Your task to perform on an android device: remove spam from my inbox in the gmail app Image 0: 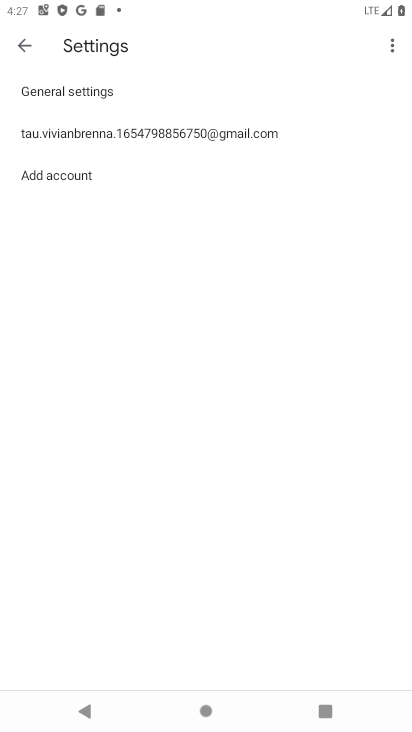
Step 0: press home button
Your task to perform on an android device: remove spam from my inbox in the gmail app Image 1: 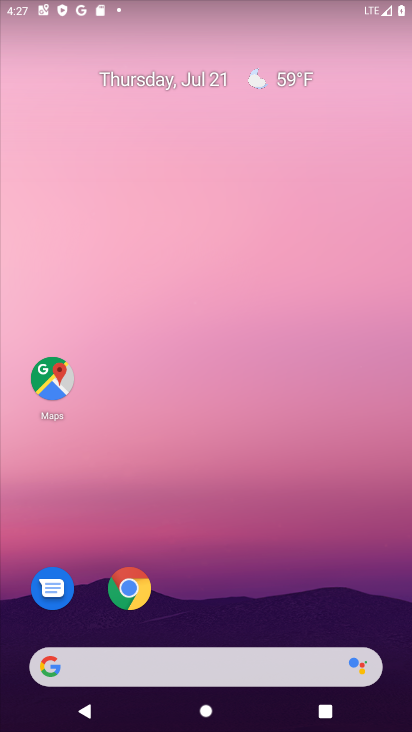
Step 1: drag from (233, 720) to (258, 148)
Your task to perform on an android device: remove spam from my inbox in the gmail app Image 2: 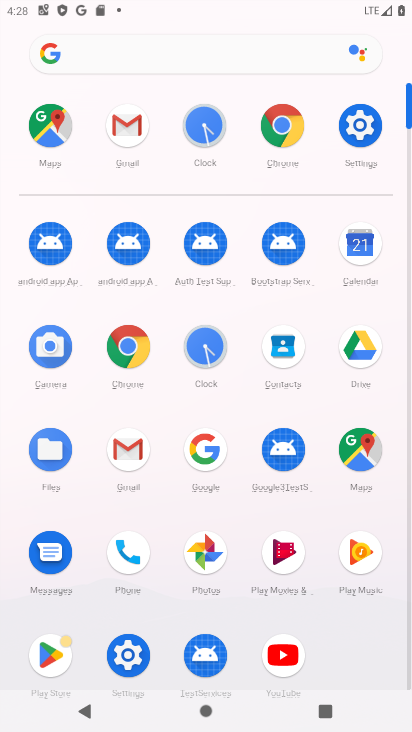
Step 2: click (133, 448)
Your task to perform on an android device: remove spam from my inbox in the gmail app Image 3: 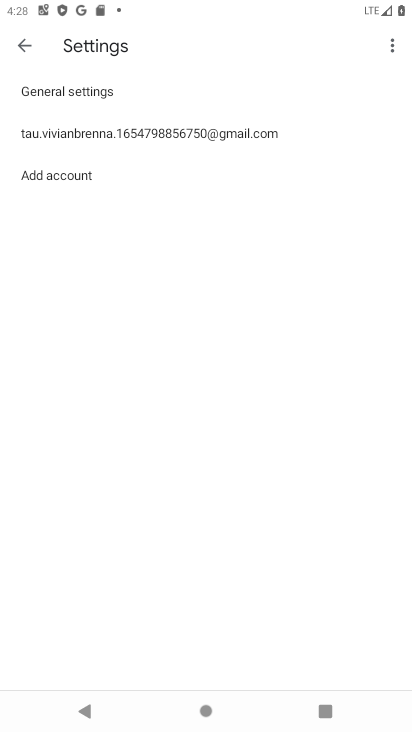
Step 3: click (21, 41)
Your task to perform on an android device: remove spam from my inbox in the gmail app Image 4: 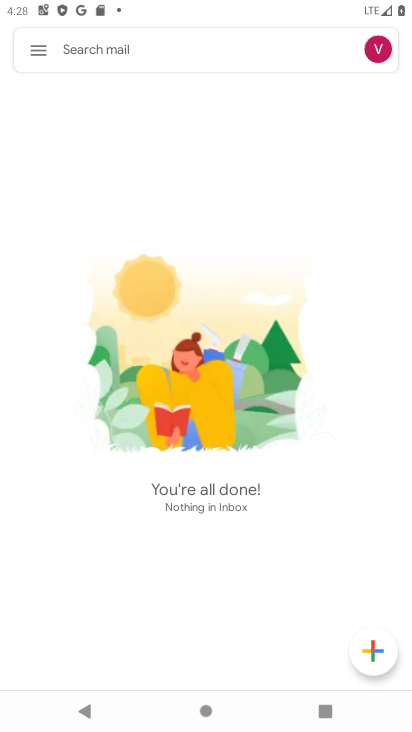
Step 4: click (35, 53)
Your task to perform on an android device: remove spam from my inbox in the gmail app Image 5: 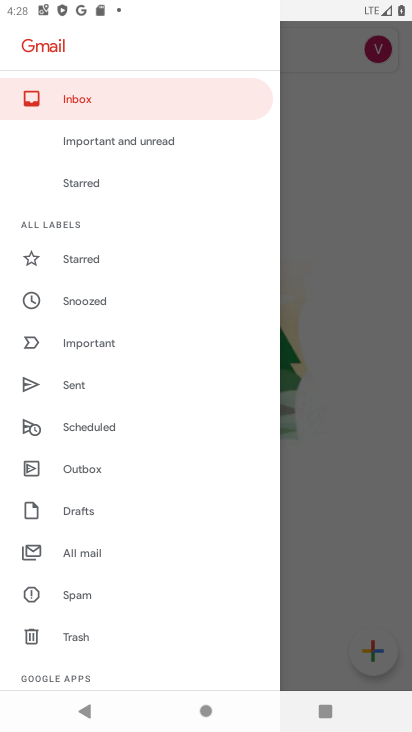
Step 5: click (94, 95)
Your task to perform on an android device: remove spam from my inbox in the gmail app Image 6: 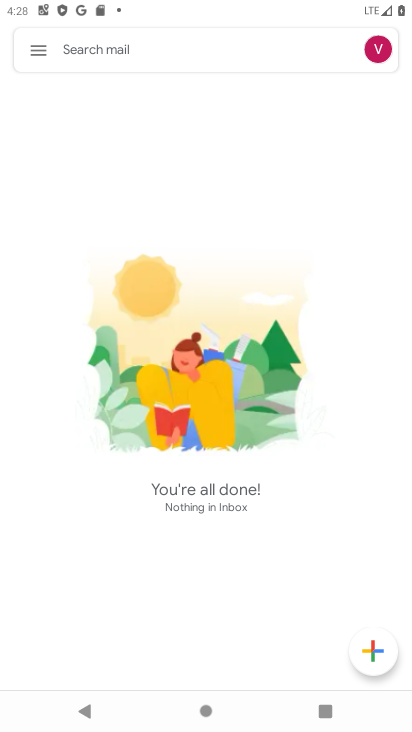
Step 6: task complete